Your task to perform on an android device: set an alarm Image 0: 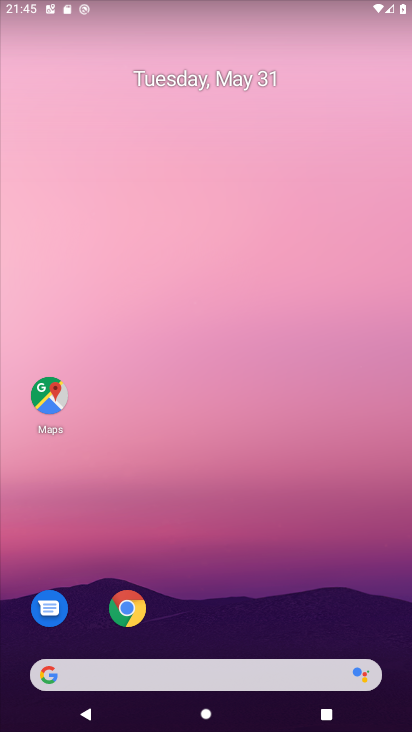
Step 0: drag from (282, 599) to (228, 105)
Your task to perform on an android device: set an alarm Image 1: 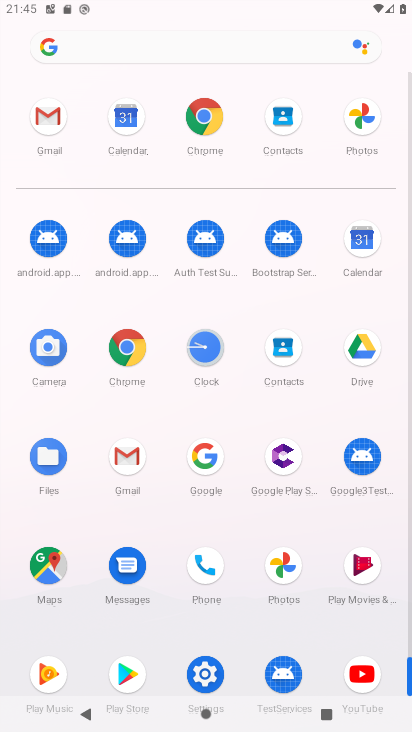
Step 1: click (206, 346)
Your task to perform on an android device: set an alarm Image 2: 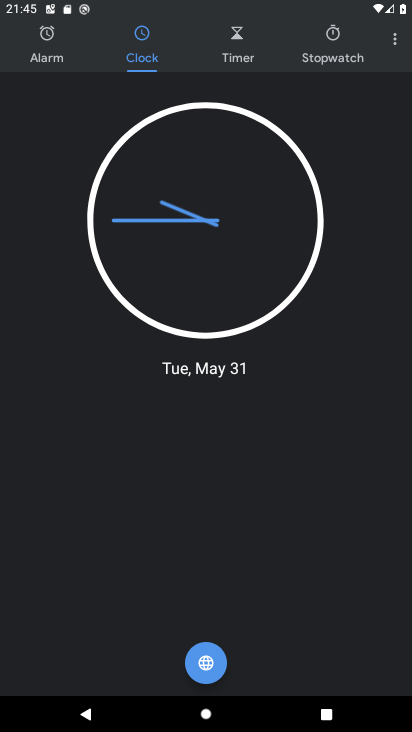
Step 2: click (47, 39)
Your task to perform on an android device: set an alarm Image 3: 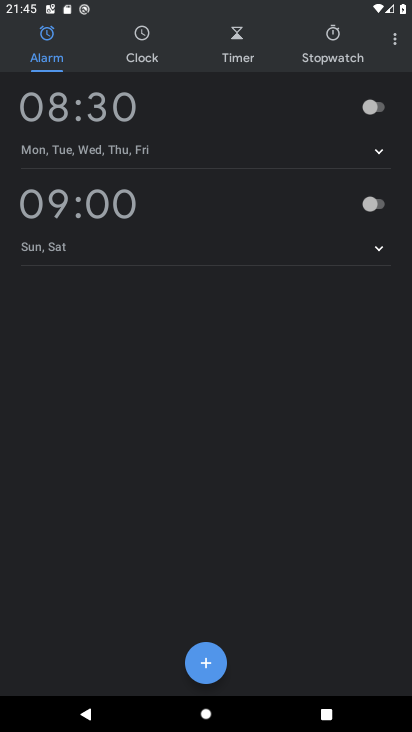
Step 3: click (206, 658)
Your task to perform on an android device: set an alarm Image 4: 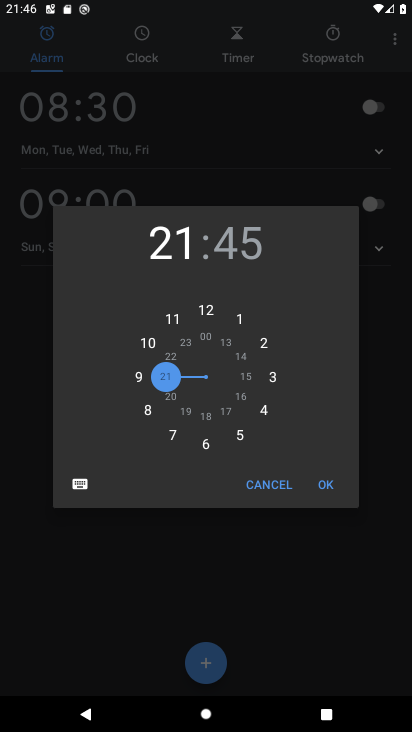
Step 4: click (201, 417)
Your task to perform on an android device: set an alarm Image 5: 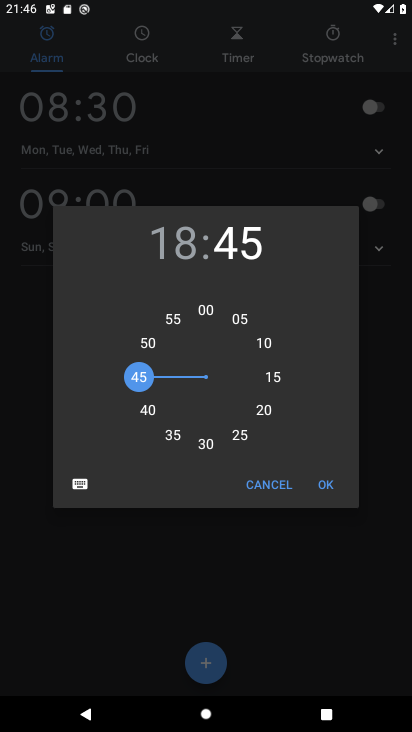
Step 5: click (329, 486)
Your task to perform on an android device: set an alarm Image 6: 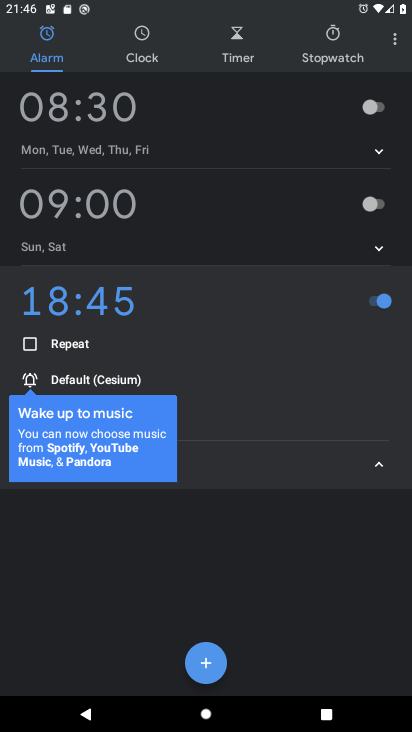
Step 6: click (375, 466)
Your task to perform on an android device: set an alarm Image 7: 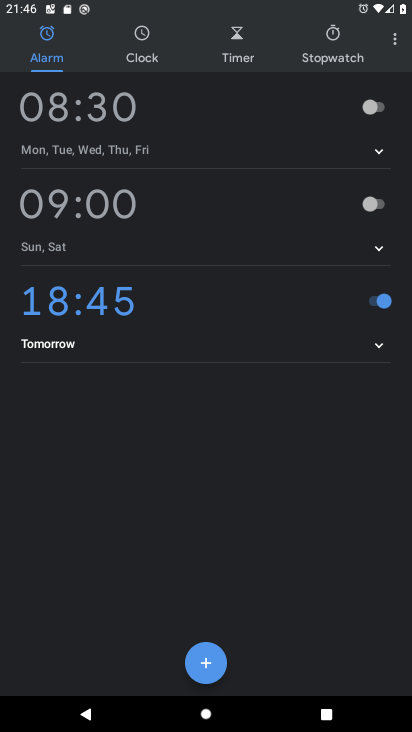
Step 7: task complete